Your task to perform on an android device: Show me the alarms in the clock app Image 0: 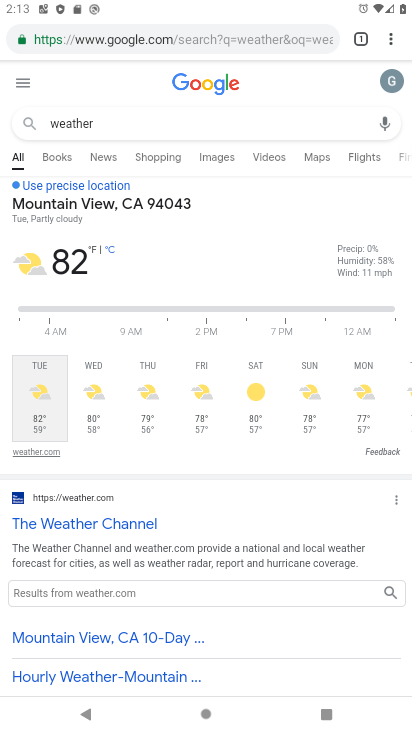
Step 0: press home button
Your task to perform on an android device: Show me the alarms in the clock app Image 1: 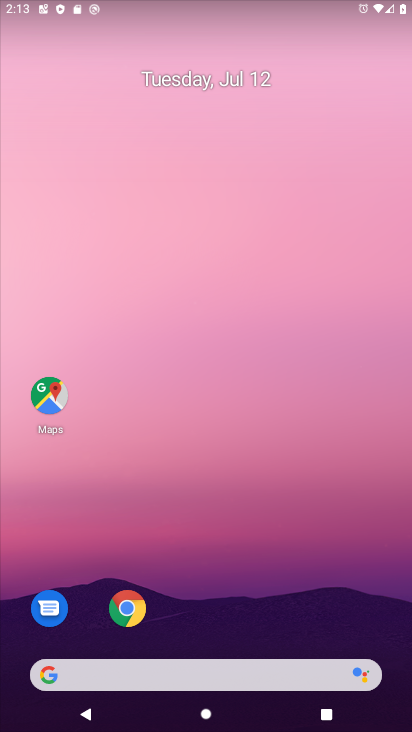
Step 1: drag from (304, 486) to (258, 133)
Your task to perform on an android device: Show me the alarms in the clock app Image 2: 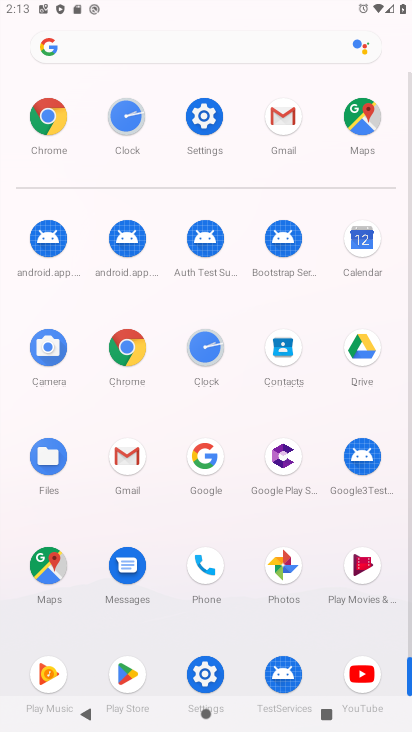
Step 2: click (206, 352)
Your task to perform on an android device: Show me the alarms in the clock app Image 3: 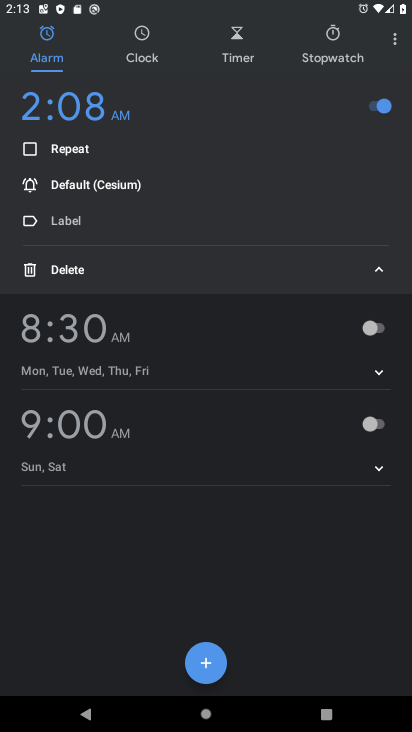
Step 3: click (398, 42)
Your task to perform on an android device: Show me the alarms in the clock app Image 4: 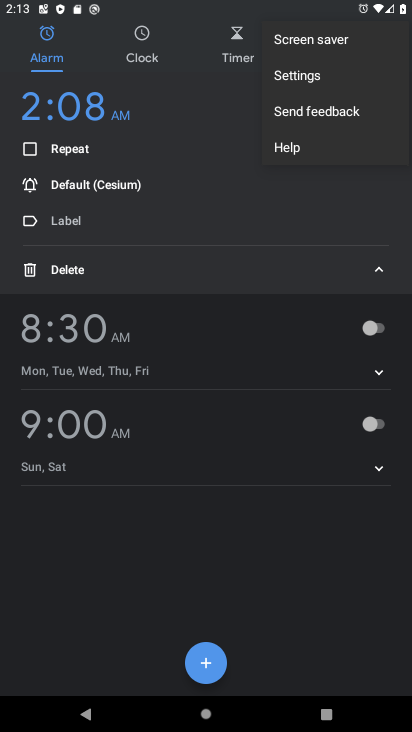
Step 4: click (321, 75)
Your task to perform on an android device: Show me the alarms in the clock app Image 5: 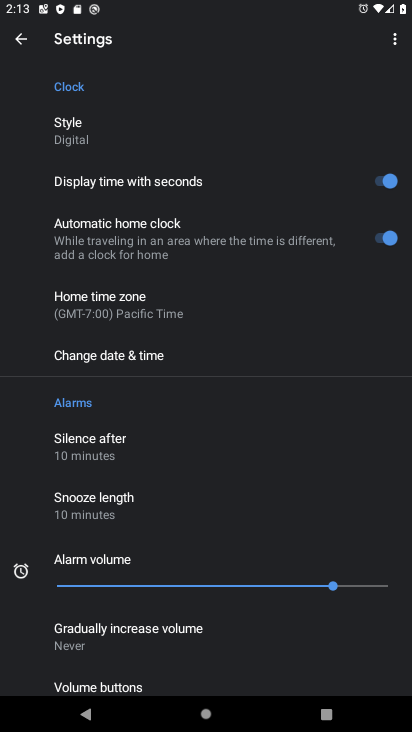
Step 5: task complete